Your task to perform on an android device: What's the weather going to be tomorrow? Image 0: 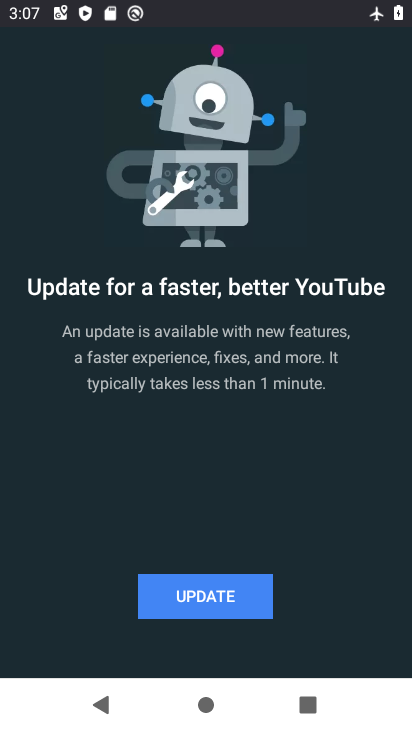
Step 0: press back button
Your task to perform on an android device: What's the weather going to be tomorrow? Image 1: 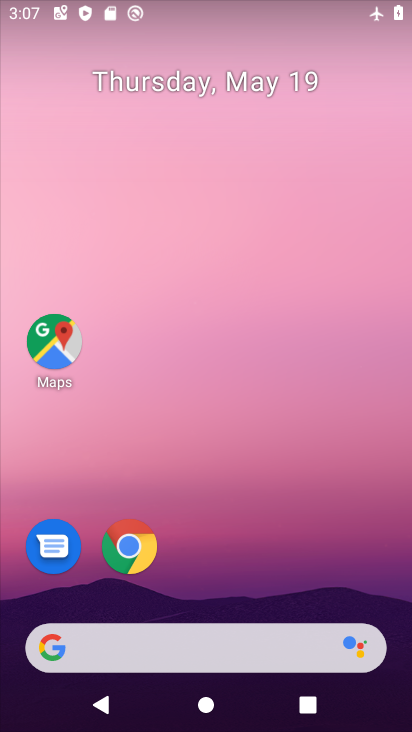
Step 1: drag from (253, 548) to (214, 200)
Your task to perform on an android device: What's the weather going to be tomorrow? Image 2: 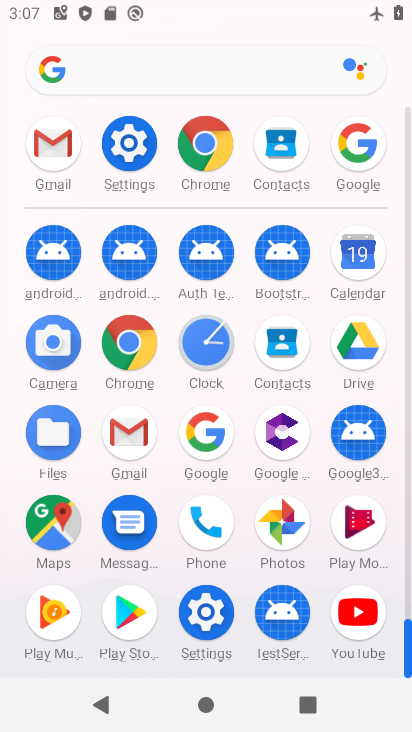
Step 2: click (355, 147)
Your task to perform on an android device: What's the weather going to be tomorrow? Image 3: 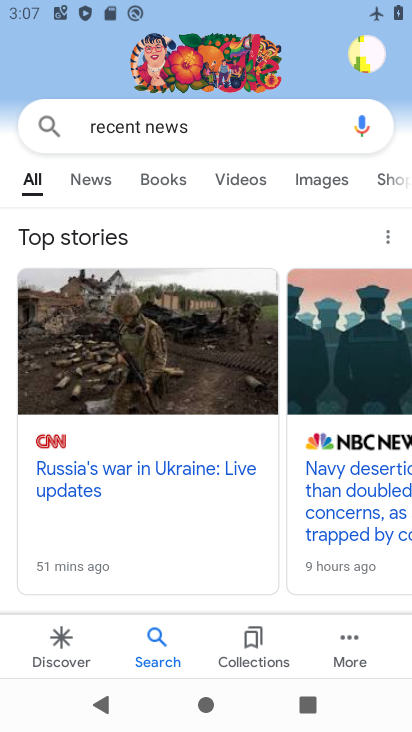
Step 3: click (290, 125)
Your task to perform on an android device: What's the weather going to be tomorrow? Image 4: 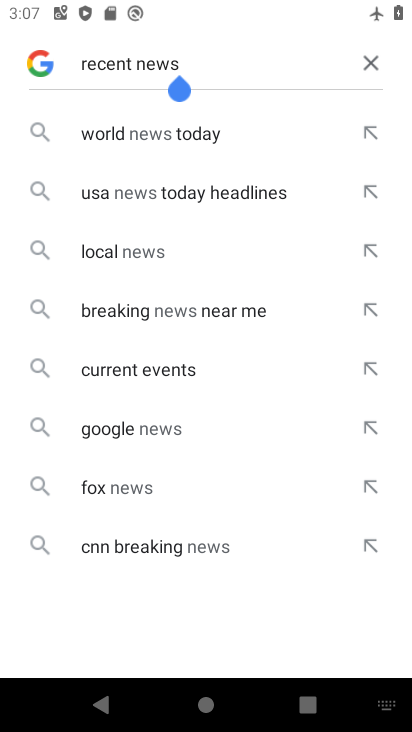
Step 4: click (367, 57)
Your task to perform on an android device: What's the weather going to be tomorrow? Image 5: 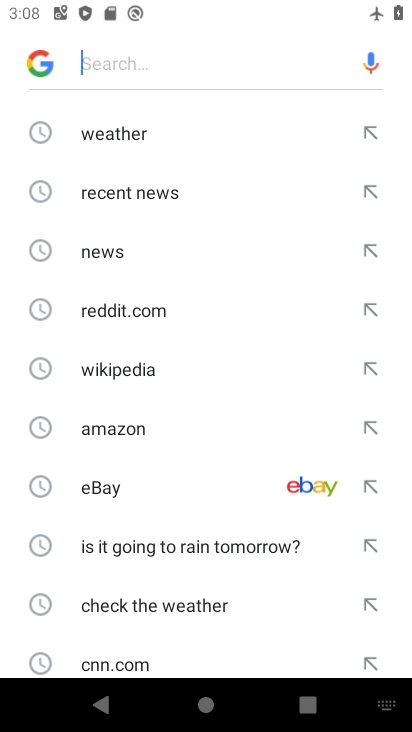
Step 5: type "What's the weather going to be tomorrow?"
Your task to perform on an android device: What's the weather going to be tomorrow? Image 6: 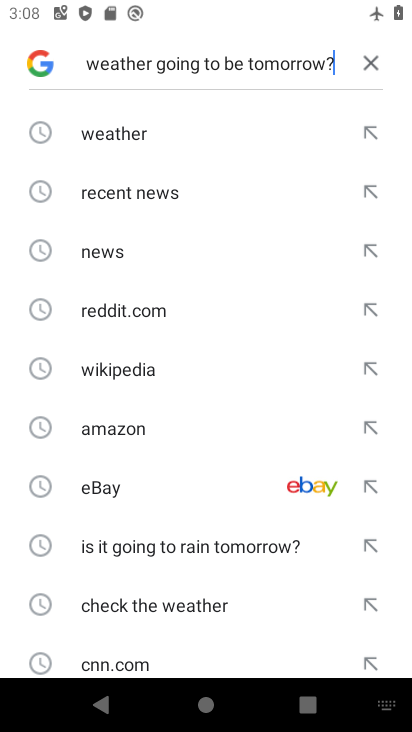
Step 6: type ""
Your task to perform on an android device: What's the weather going to be tomorrow? Image 7: 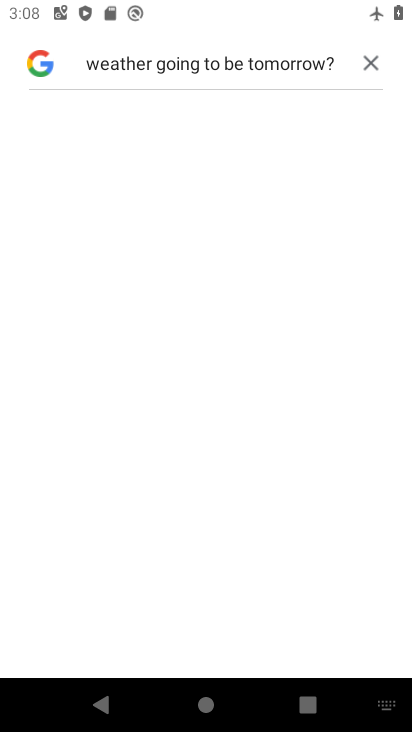
Step 7: task complete